Your task to perform on an android device: turn on bluetooth scan Image 0: 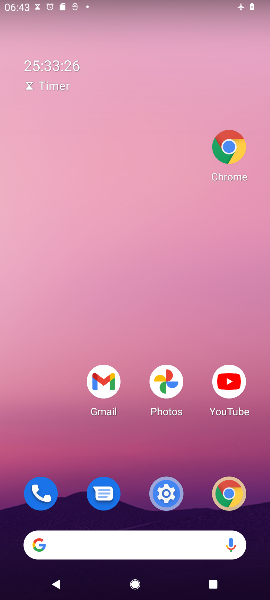
Step 0: press home button
Your task to perform on an android device: turn on bluetooth scan Image 1: 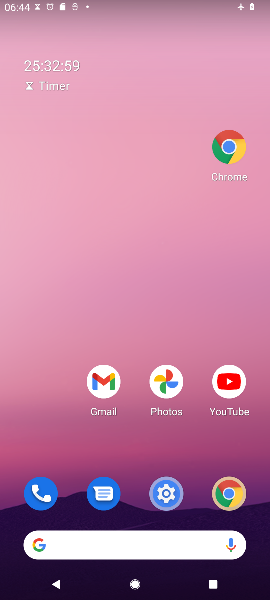
Step 1: click (164, 502)
Your task to perform on an android device: turn on bluetooth scan Image 2: 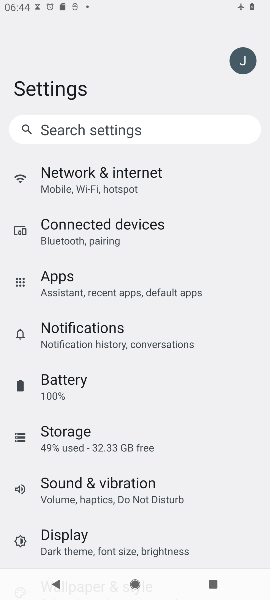
Step 2: drag from (233, 531) to (175, 129)
Your task to perform on an android device: turn on bluetooth scan Image 3: 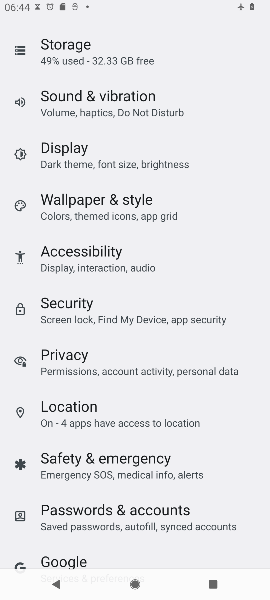
Step 3: click (76, 418)
Your task to perform on an android device: turn on bluetooth scan Image 4: 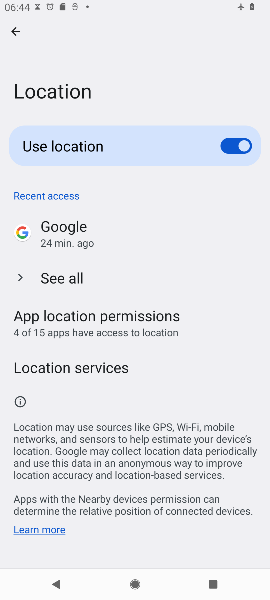
Step 4: click (98, 373)
Your task to perform on an android device: turn on bluetooth scan Image 5: 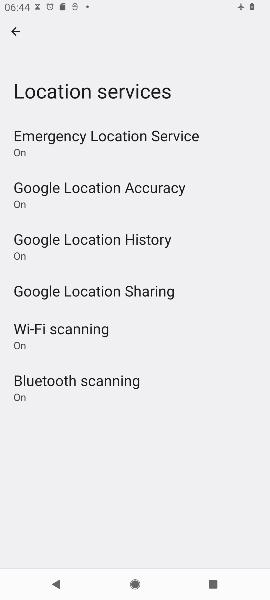
Step 5: click (120, 376)
Your task to perform on an android device: turn on bluetooth scan Image 6: 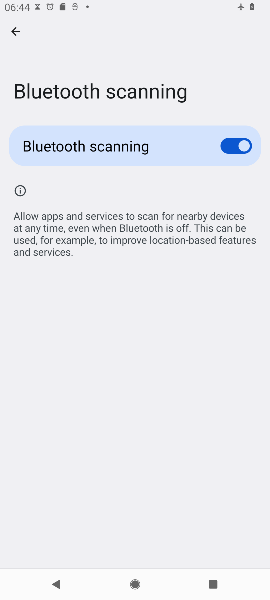
Step 6: task complete